Your task to perform on an android device: change the upload size in google photos Image 0: 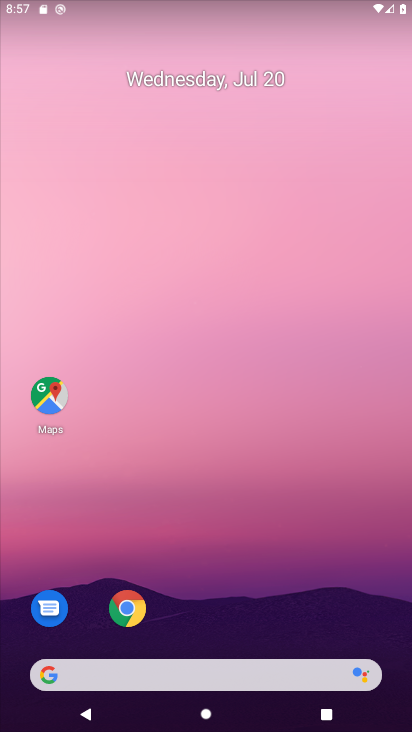
Step 0: drag from (247, 600) to (192, 78)
Your task to perform on an android device: change the upload size in google photos Image 1: 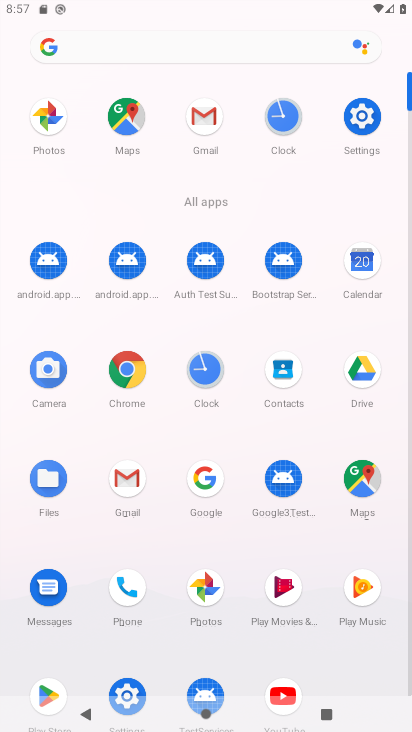
Step 1: click (365, 109)
Your task to perform on an android device: change the upload size in google photos Image 2: 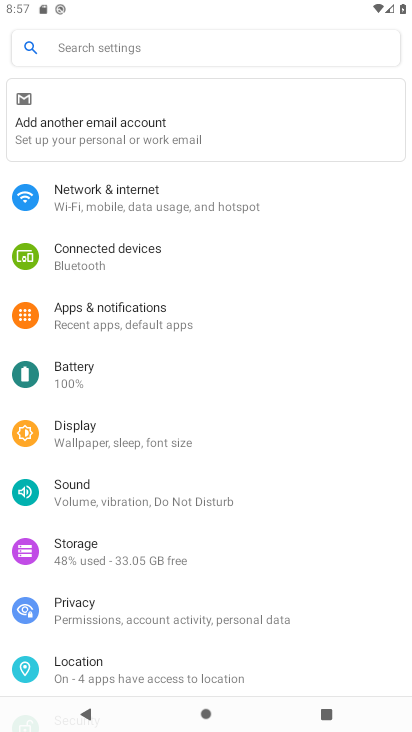
Step 2: click (76, 424)
Your task to perform on an android device: change the upload size in google photos Image 3: 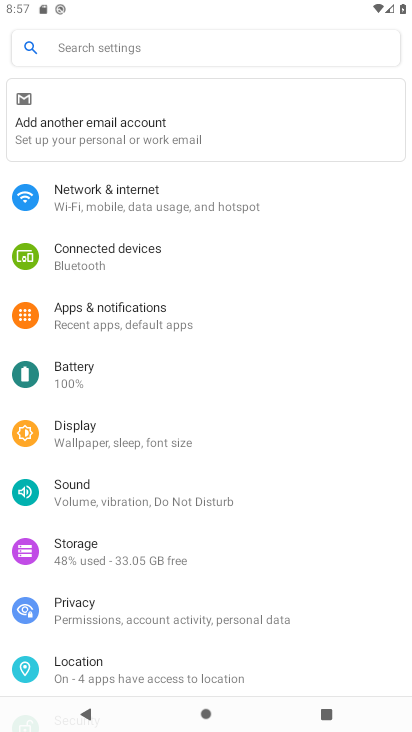
Step 3: click (88, 430)
Your task to perform on an android device: change the upload size in google photos Image 4: 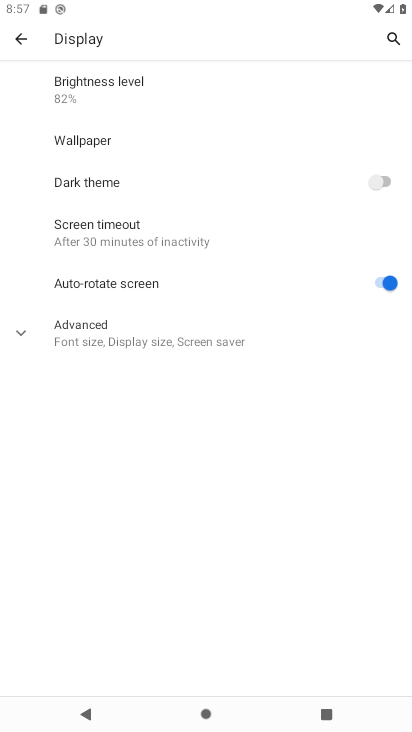
Step 4: click (19, 330)
Your task to perform on an android device: change the upload size in google photos Image 5: 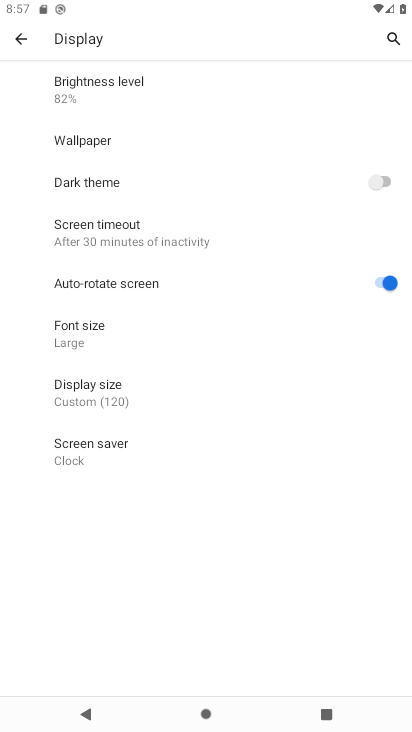
Step 5: click (77, 386)
Your task to perform on an android device: change the upload size in google photos Image 6: 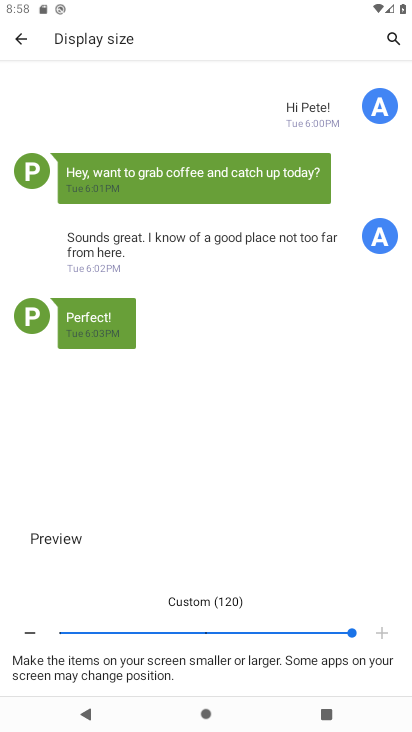
Step 6: click (31, 632)
Your task to perform on an android device: change the upload size in google photos Image 7: 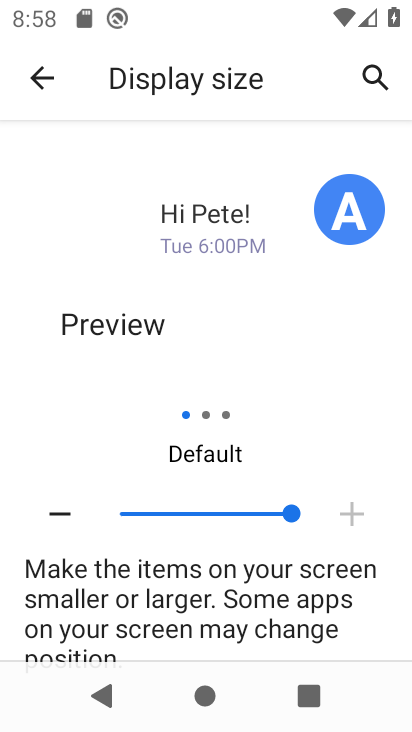
Step 7: click (60, 509)
Your task to perform on an android device: change the upload size in google photos Image 8: 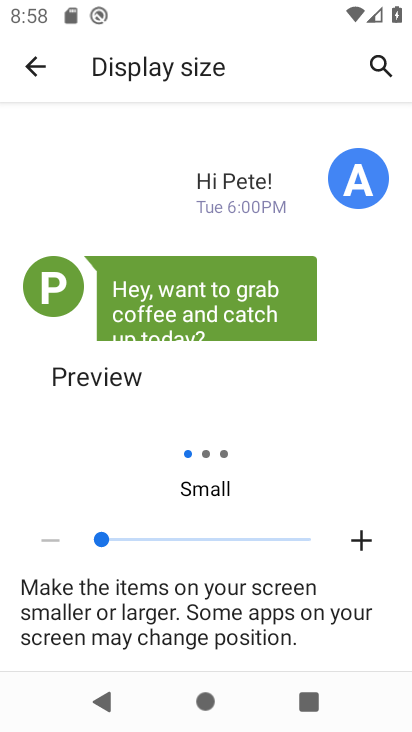
Step 8: press home button
Your task to perform on an android device: change the upload size in google photos Image 9: 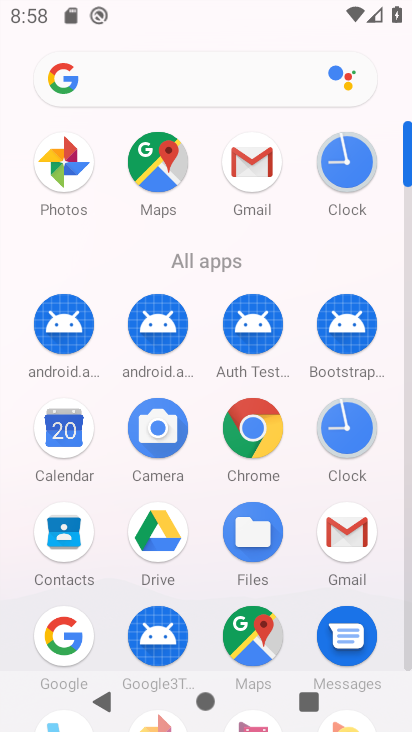
Step 9: click (59, 164)
Your task to perform on an android device: change the upload size in google photos Image 10: 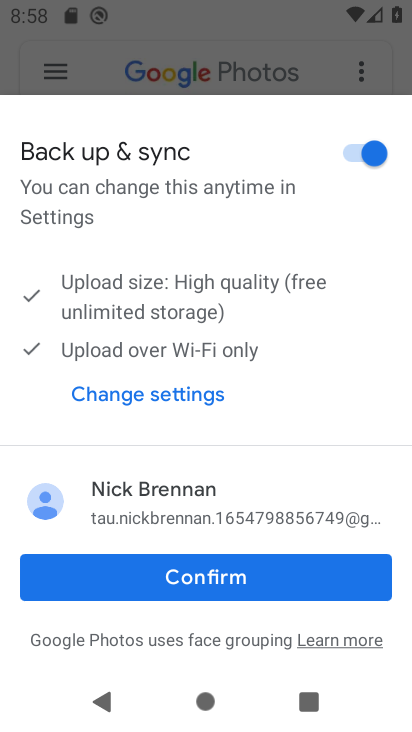
Step 10: click (205, 568)
Your task to perform on an android device: change the upload size in google photos Image 11: 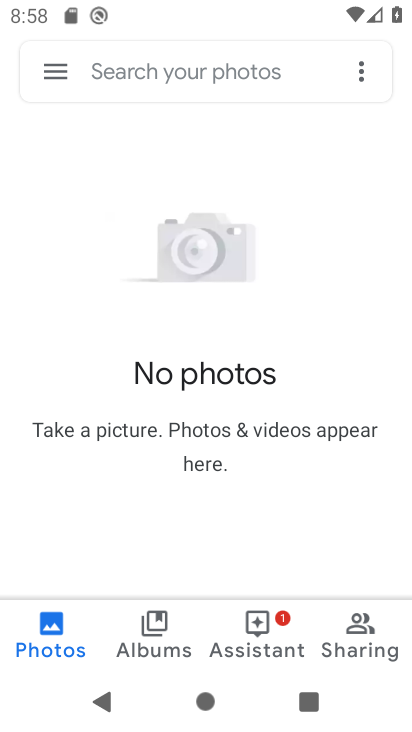
Step 11: click (52, 65)
Your task to perform on an android device: change the upload size in google photos Image 12: 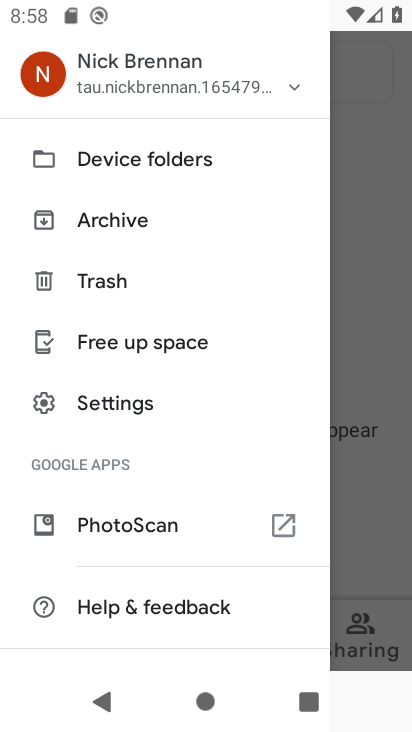
Step 12: click (104, 392)
Your task to perform on an android device: change the upload size in google photos Image 13: 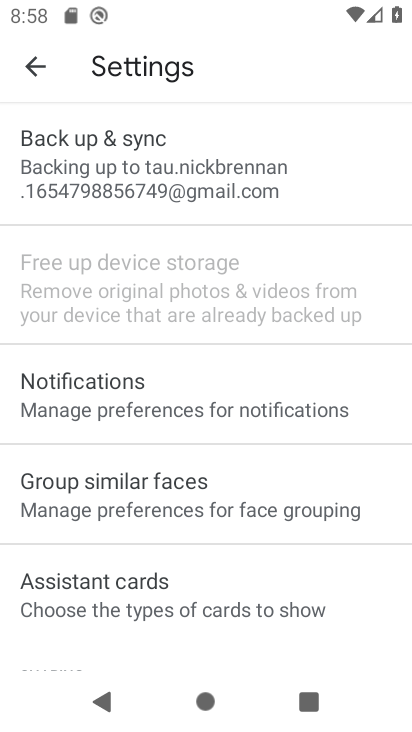
Step 13: click (179, 179)
Your task to perform on an android device: change the upload size in google photos Image 14: 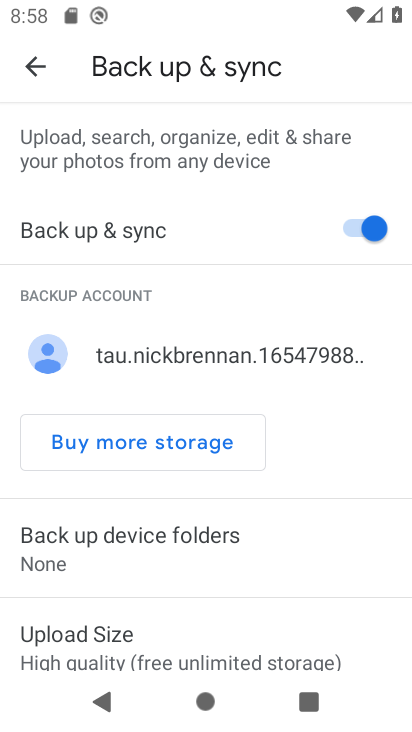
Step 14: drag from (251, 579) to (222, 248)
Your task to perform on an android device: change the upload size in google photos Image 15: 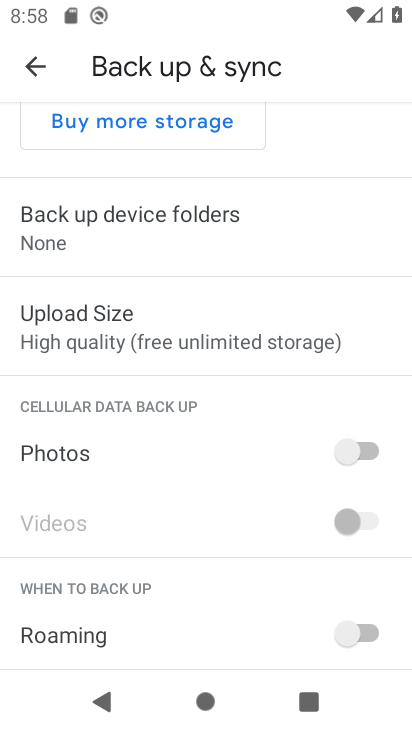
Step 15: click (213, 330)
Your task to perform on an android device: change the upload size in google photos Image 16: 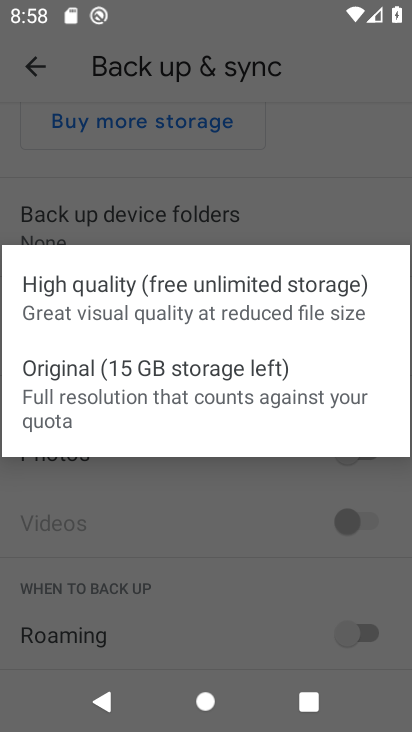
Step 16: click (293, 365)
Your task to perform on an android device: change the upload size in google photos Image 17: 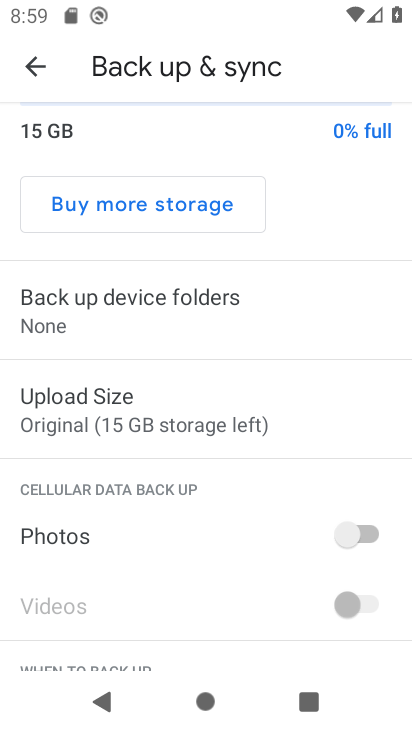
Step 17: task complete